Your task to perform on an android device: What's a good restaurant in Sacramento? Image 0: 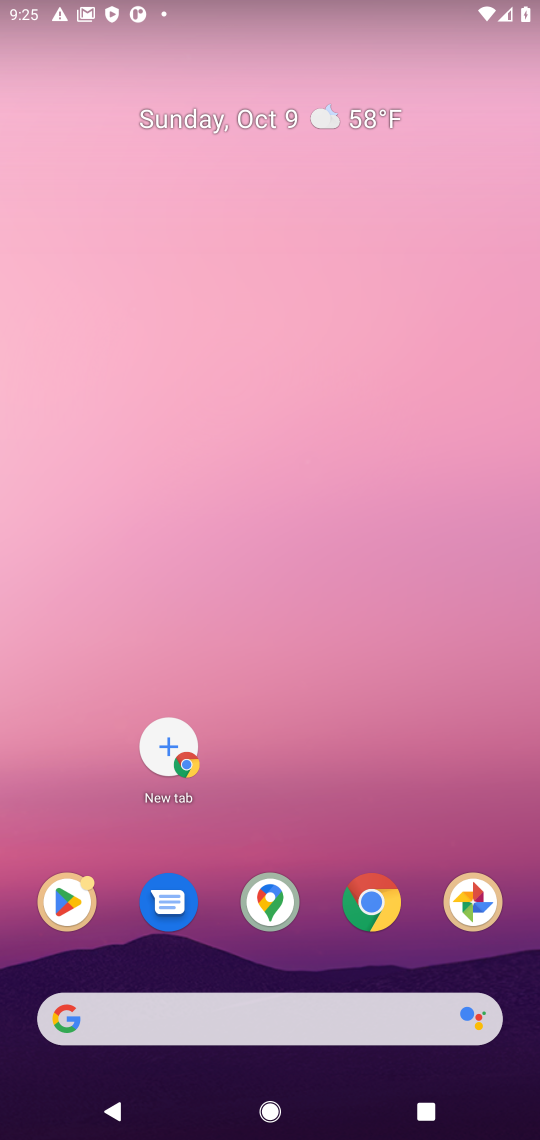
Step 0: click (365, 907)
Your task to perform on an android device: What's a good restaurant in Sacramento? Image 1: 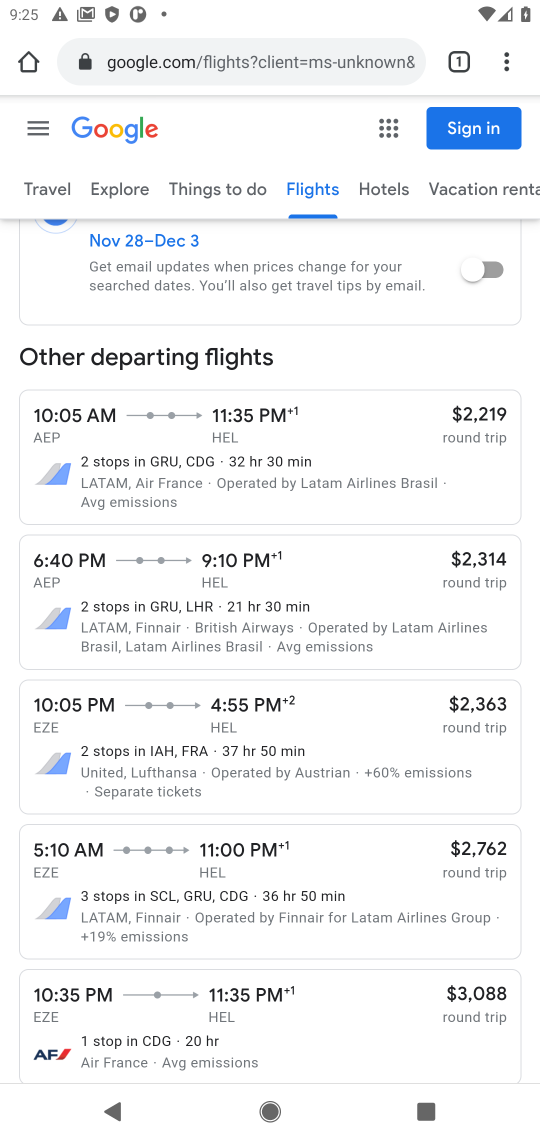
Step 1: click (281, 62)
Your task to perform on an android device: What's a good restaurant in Sacramento? Image 2: 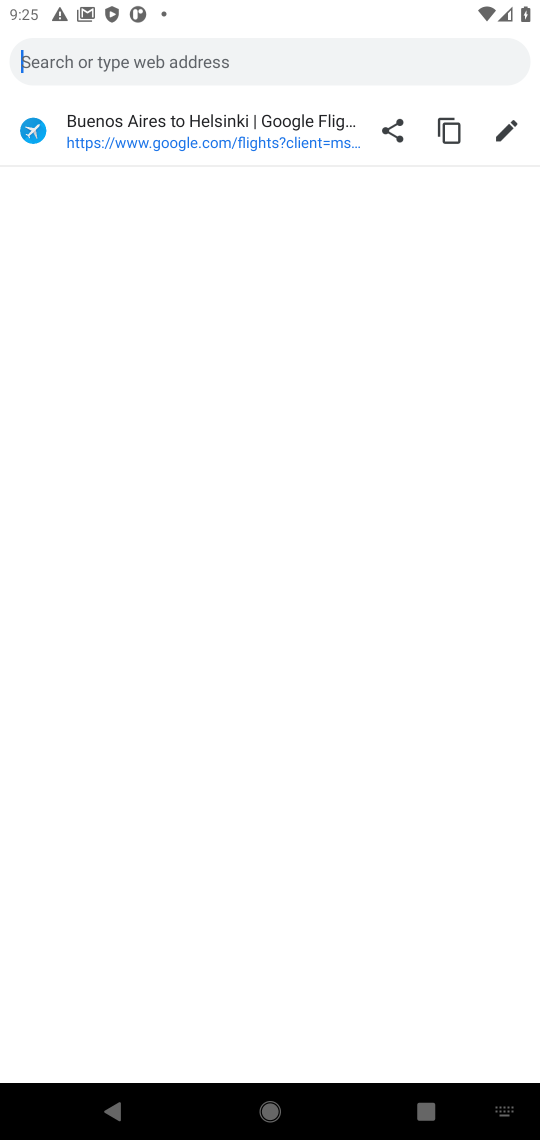
Step 2: type "good restaurant in Sacramento"
Your task to perform on an android device: What's a good restaurant in Sacramento? Image 3: 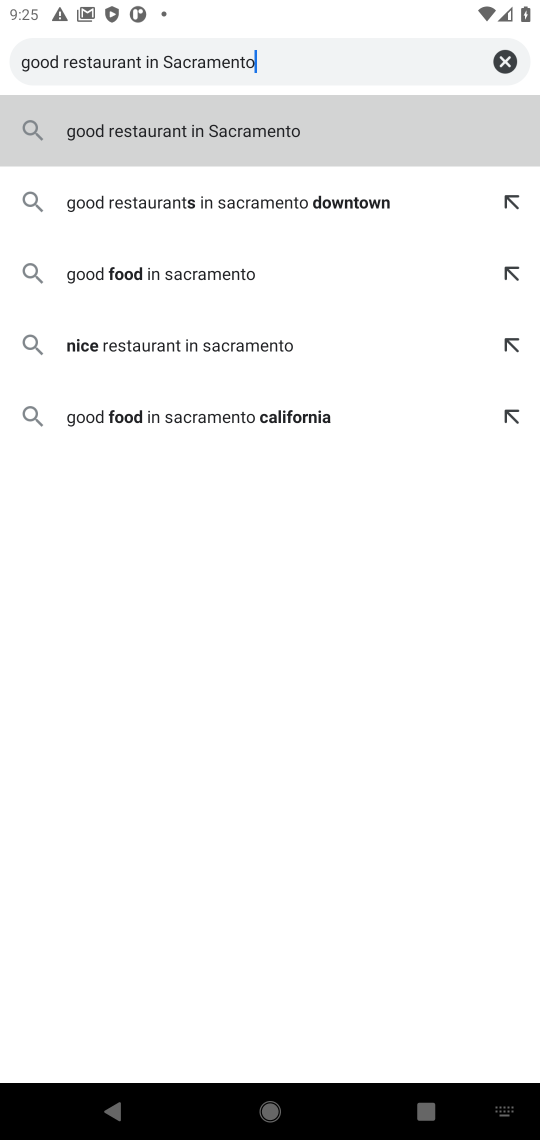
Step 3: type ""
Your task to perform on an android device: What's a good restaurant in Sacramento? Image 4: 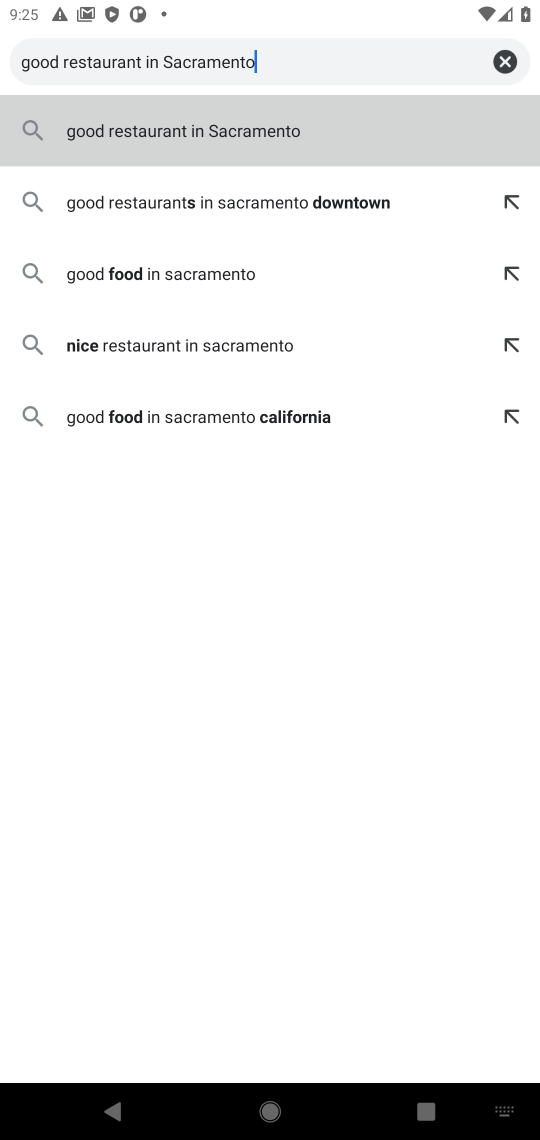
Step 4: click (321, 142)
Your task to perform on an android device: What's a good restaurant in Sacramento? Image 5: 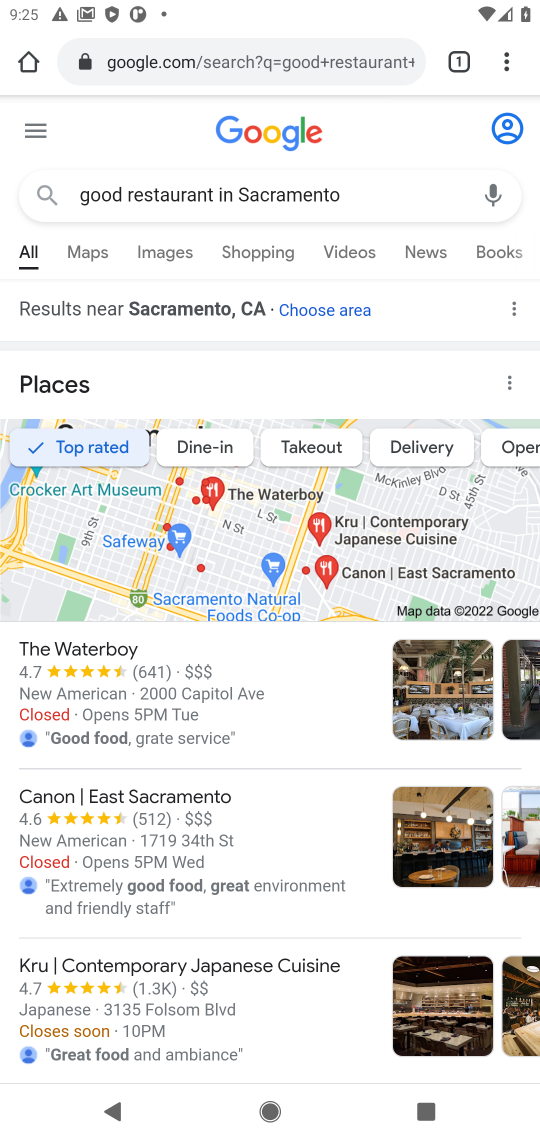
Step 5: drag from (318, 727) to (280, 423)
Your task to perform on an android device: What's a good restaurant in Sacramento? Image 6: 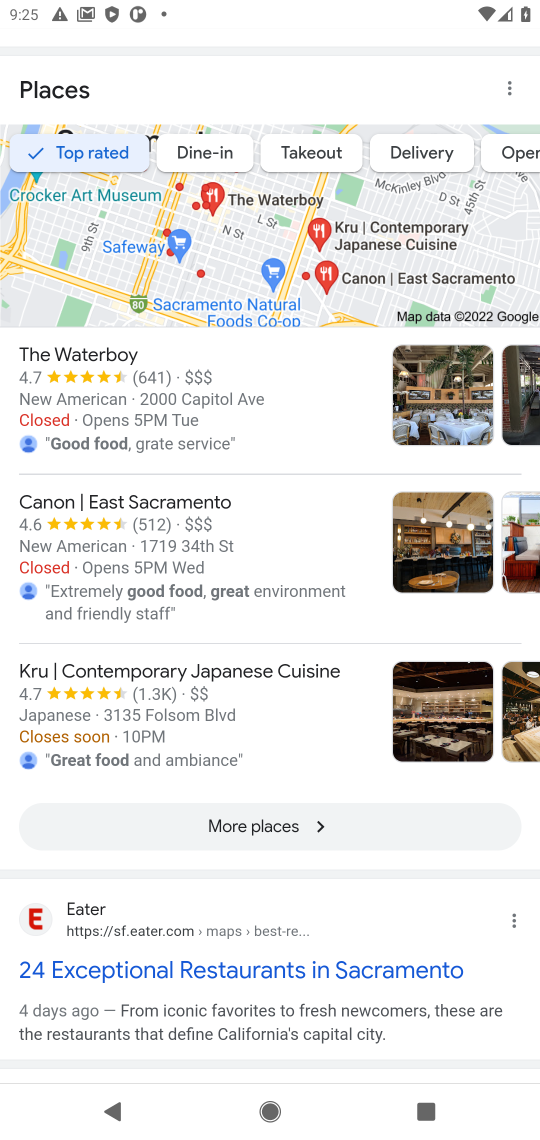
Step 6: click (262, 823)
Your task to perform on an android device: What's a good restaurant in Sacramento? Image 7: 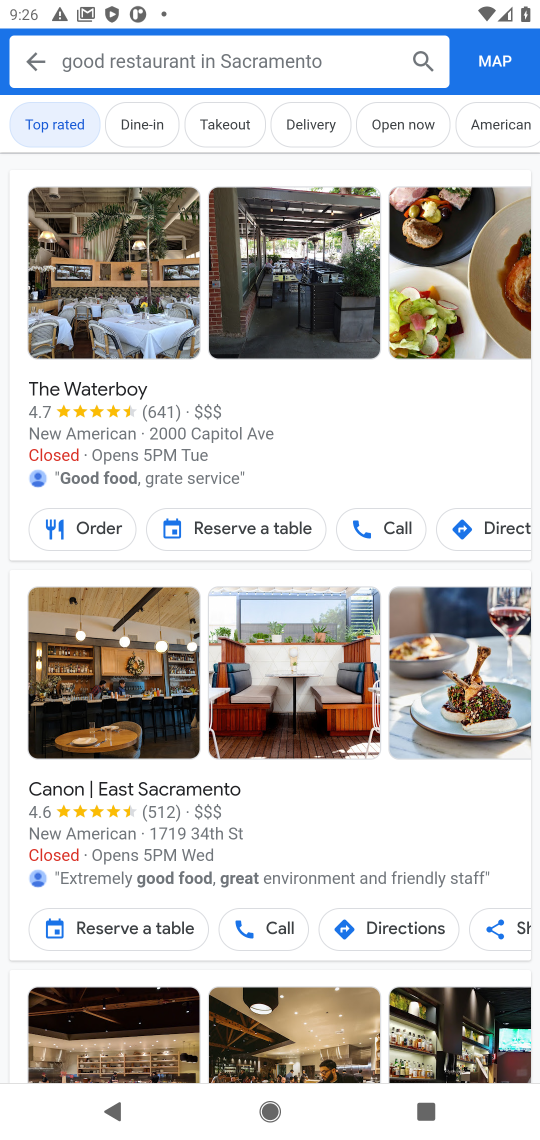
Step 7: task complete